Your task to perform on an android device: Open eBay Image 0: 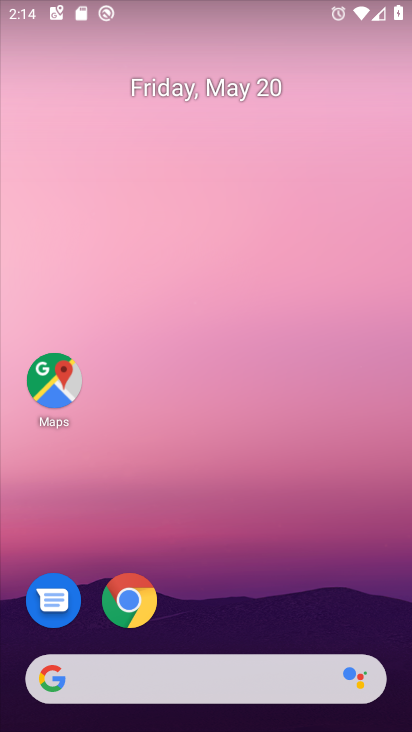
Step 0: click (135, 597)
Your task to perform on an android device: Open eBay Image 1: 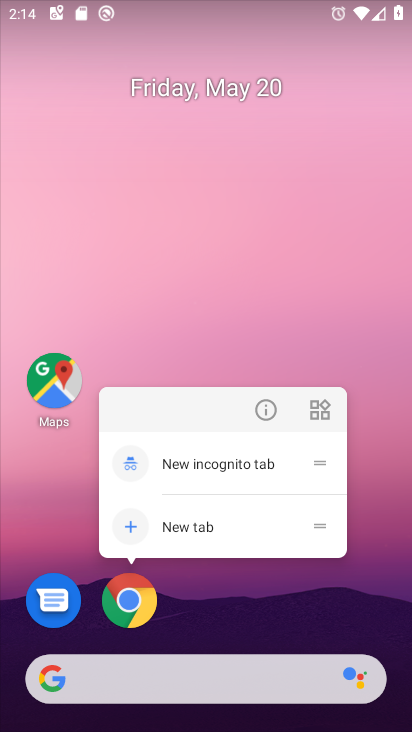
Step 1: click (136, 588)
Your task to perform on an android device: Open eBay Image 2: 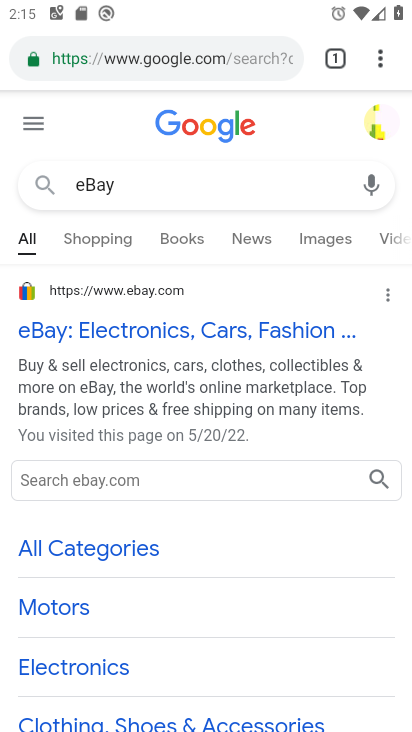
Step 2: click (125, 342)
Your task to perform on an android device: Open eBay Image 3: 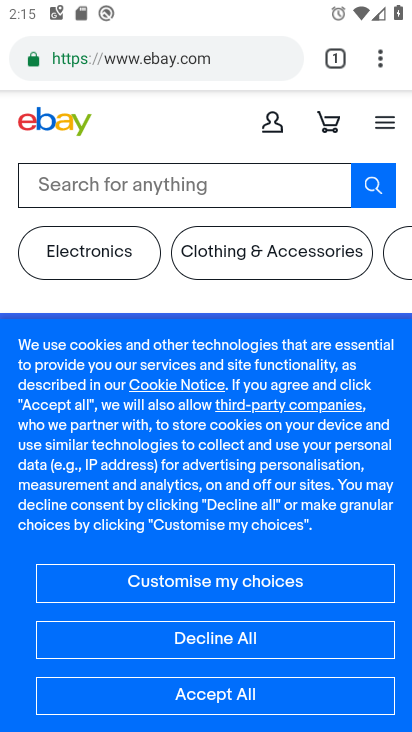
Step 3: task complete